Your task to perform on an android device: Go to wifi settings Image 0: 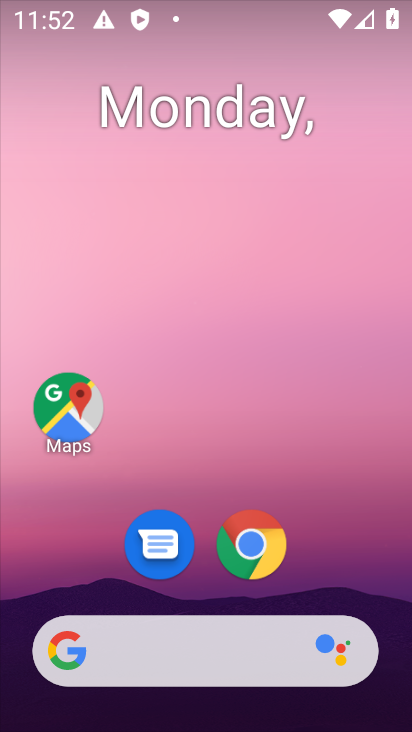
Step 0: drag from (338, 535) to (296, 48)
Your task to perform on an android device: Go to wifi settings Image 1: 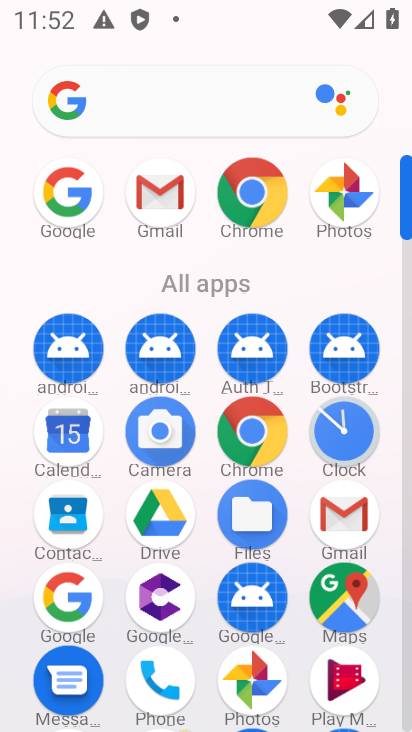
Step 1: drag from (294, 613) to (300, 87)
Your task to perform on an android device: Go to wifi settings Image 2: 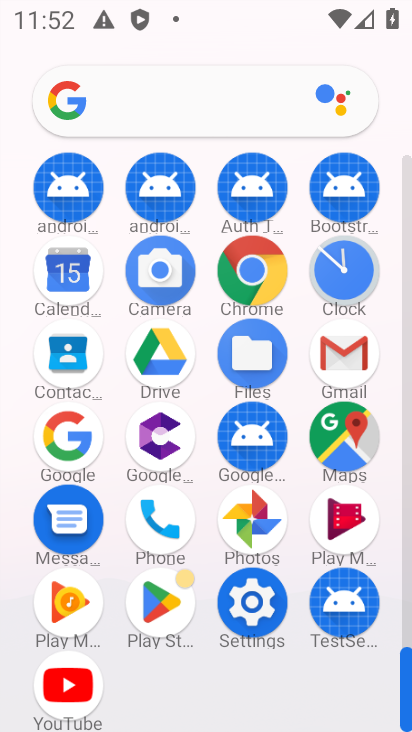
Step 2: click (251, 615)
Your task to perform on an android device: Go to wifi settings Image 3: 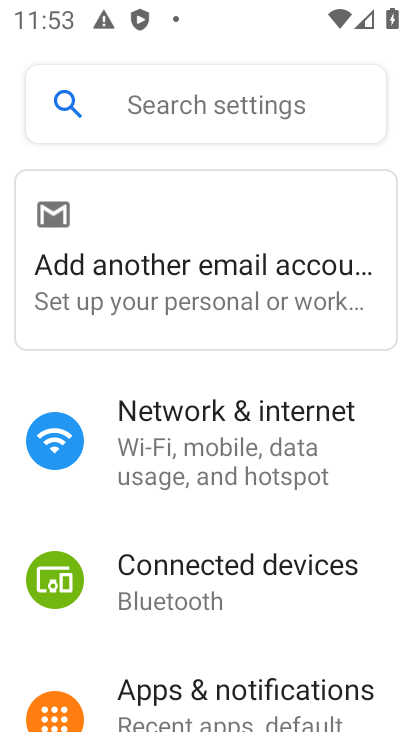
Step 3: click (229, 485)
Your task to perform on an android device: Go to wifi settings Image 4: 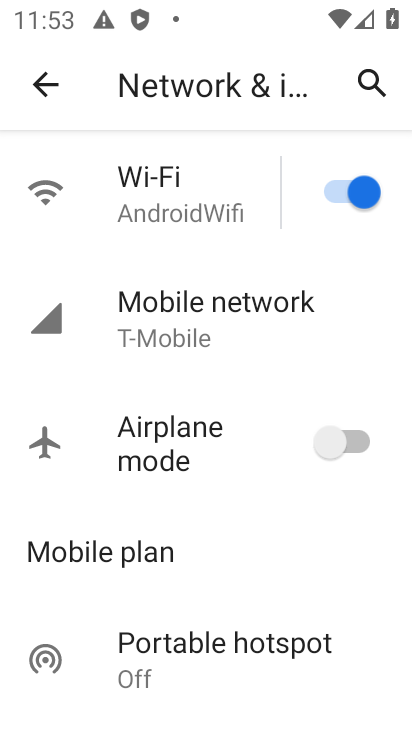
Step 4: click (169, 204)
Your task to perform on an android device: Go to wifi settings Image 5: 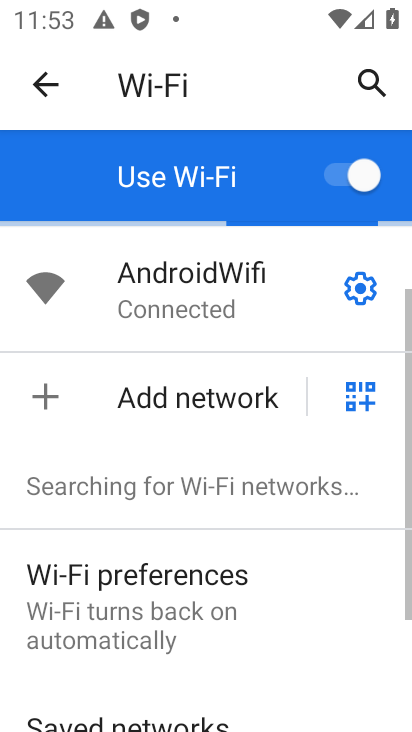
Step 5: click (365, 288)
Your task to perform on an android device: Go to wifi settings Image 6: 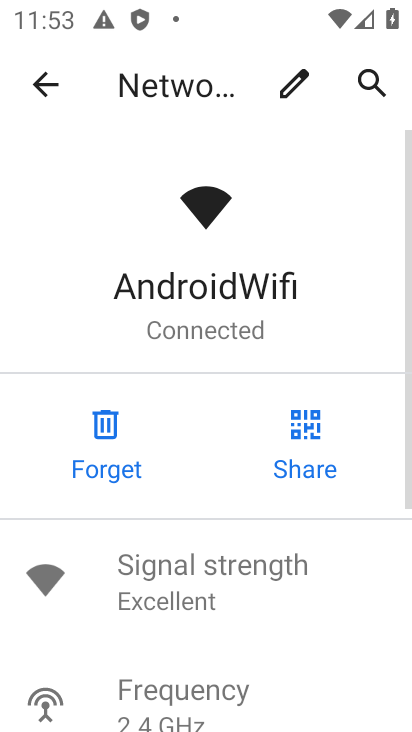
Step 6: task complete